Your task to perform on an android device: change the upload size in google photos Image 0: 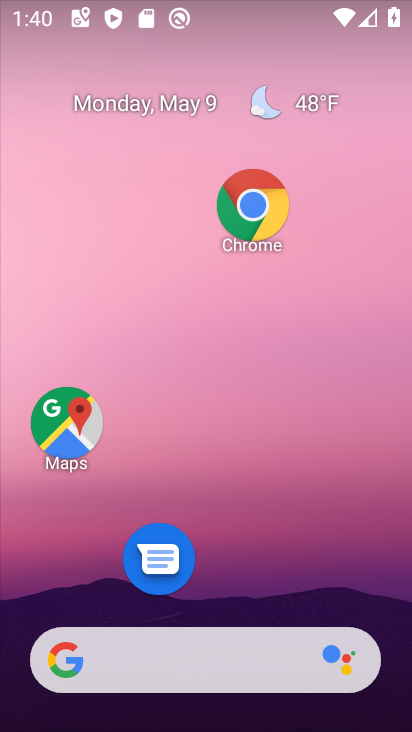
Step 0: drag from (310, 569) to (345, 262)
Your task to perform on an android device: change the upload size in google photos Image 1: 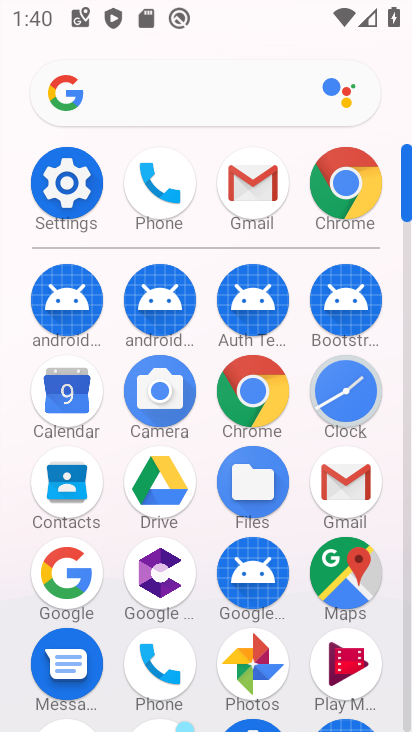
Step 1: click (256, 642)
Your task to perform on an android device: change the upload size in google photos Image 2: 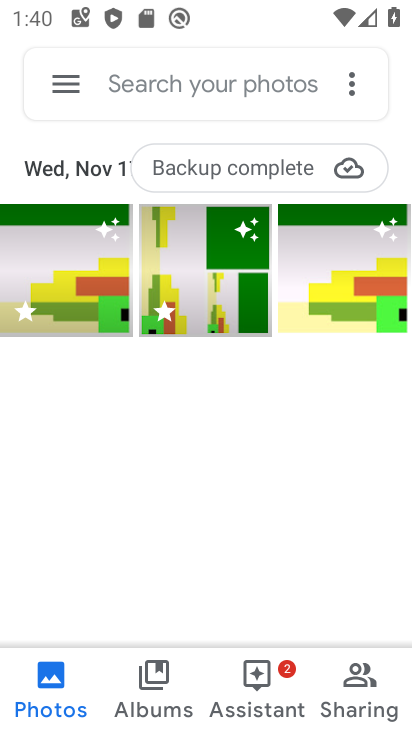
Step 2: click (55, 88)
Your task to perform on an android device: change the upload size in google photos Image 3: 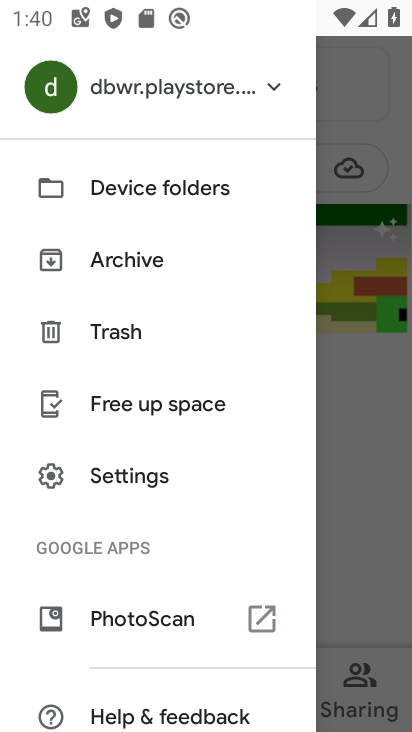
Step 3: click (124, 476)
Your task to perform on an android device: change the upload size in google photos Image 4: 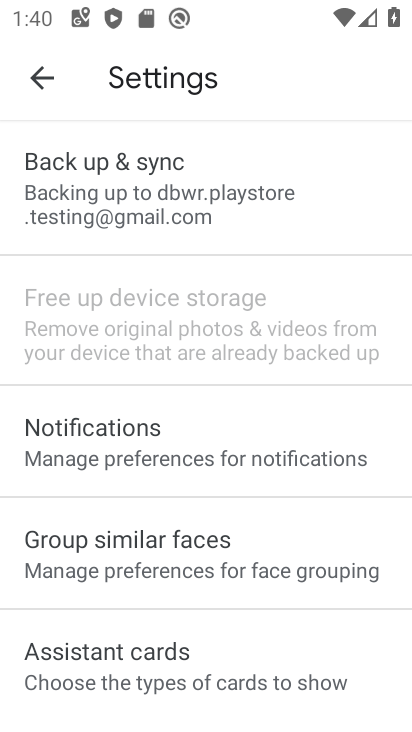
Step 4: click (155, 204)
Your task to perform on an android device: change the upload size in google photos Image 5: 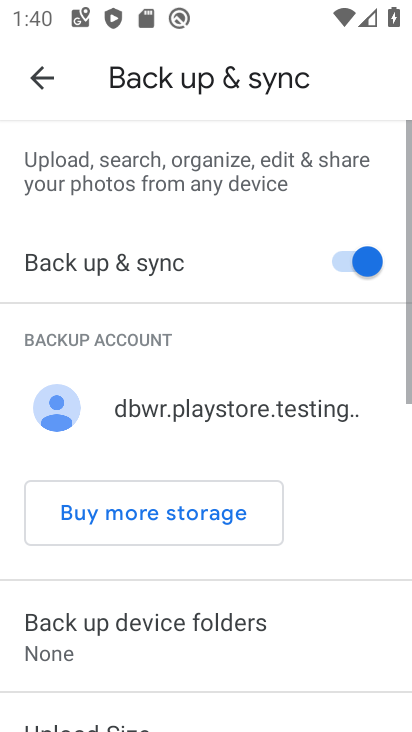
Step 5: drag from (168, 610) to (228, 321)
Your task to perform on an android device: change the upload size in google photos Image 6: 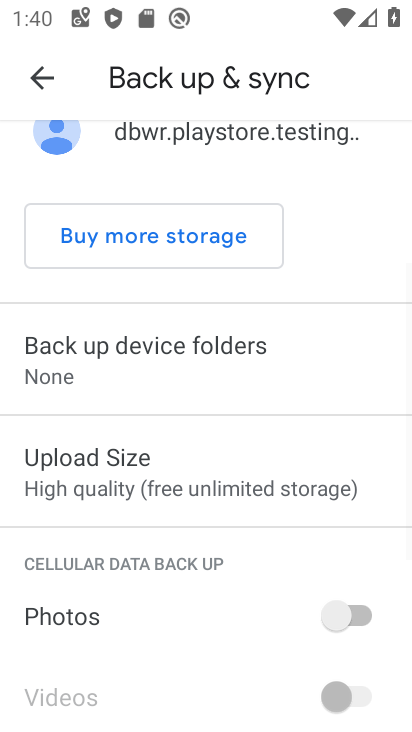
Step 6: click (133, 465)
Your task to perform on an android device: change the upload size in google photos Image 7: 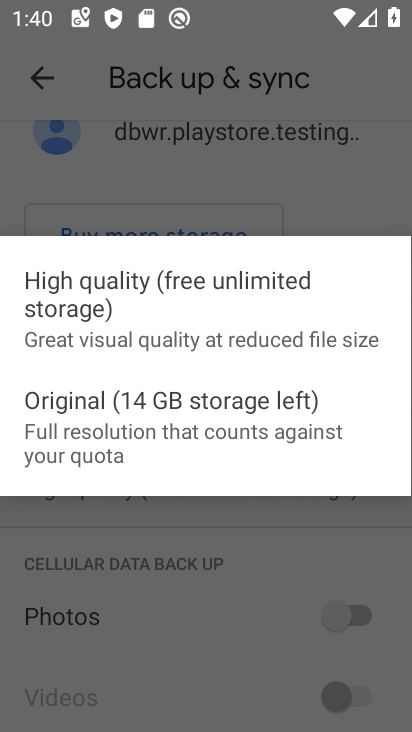
Step 7: click (94, 439)
Your task to perform on an android device: change the upload size in google photos Image 8: 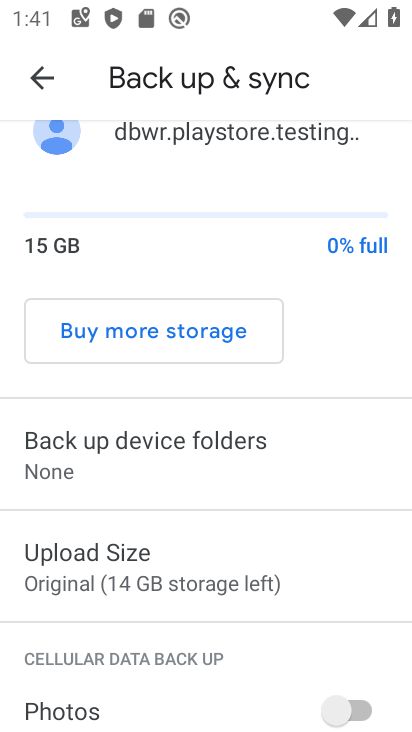
Step 8: task complete